Your task to perform on an android device: change the clock style Image 0: 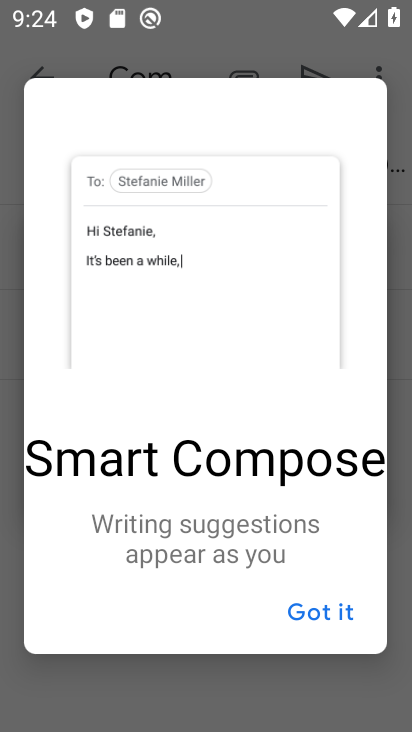
Step 0: press home button
Your task to perform on an android device: change the clock style Image 1: 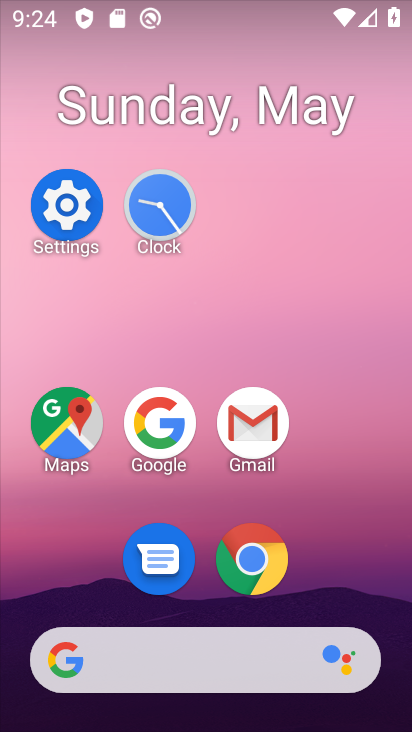
Step 1: click (167, 187)
Your task to perform on an android device: change the clock style Image 2: 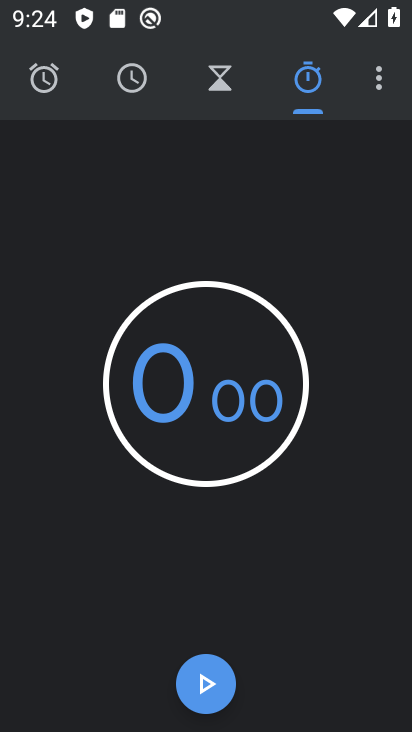
Step 2: click (384, 79)
Your task to perform on an android device: change the clock style Image 3: 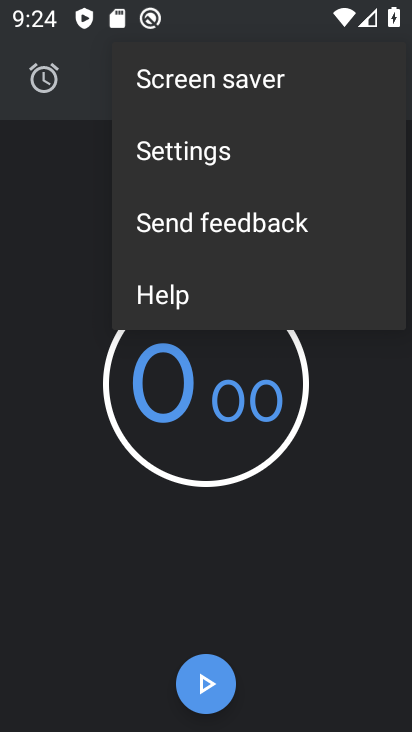
Step 3: click (209, 133)
Your task to perform on an android device: change the clock style Image 4: 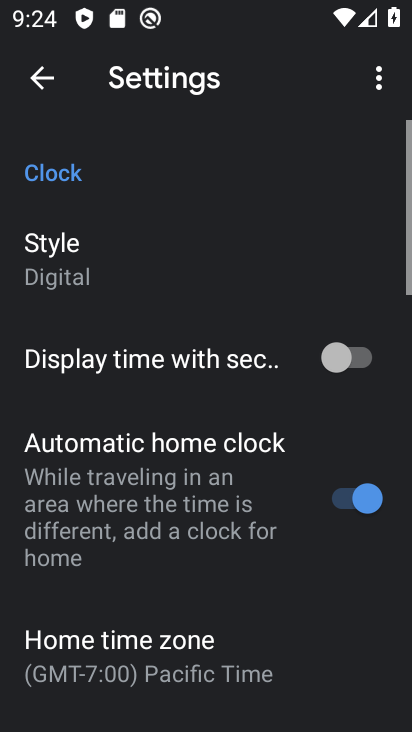
Step 4: click (129, 209)
Your task to perform on an android device: change the clock style Image 5: 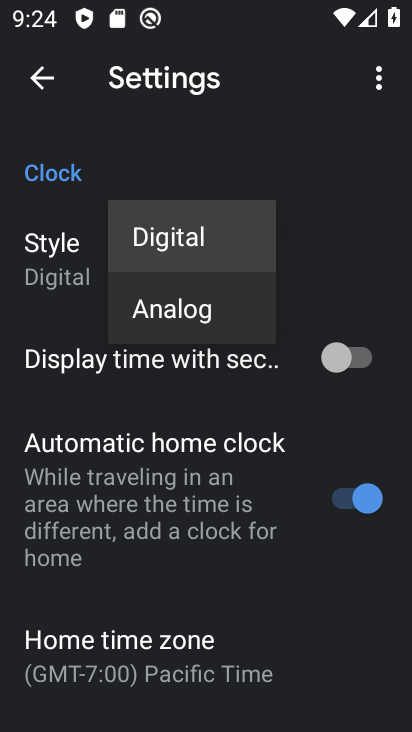
Step 5: click (181, 323)
Your task to perform on an android device: change the clock style Image 6: 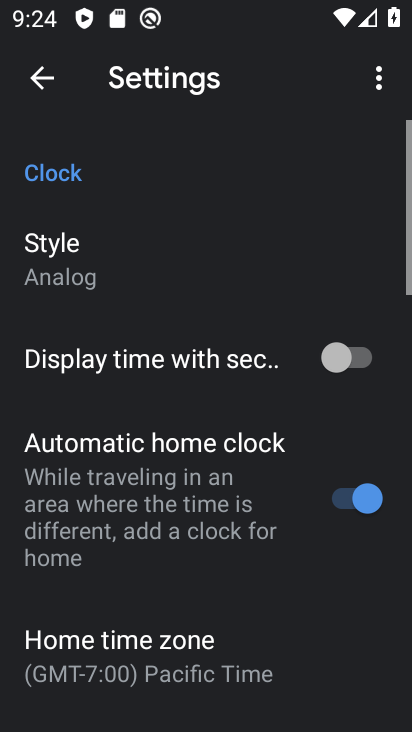
Step 6: task complete